Your task to perform on an android device: Open Chrome and go to settings Image 0: 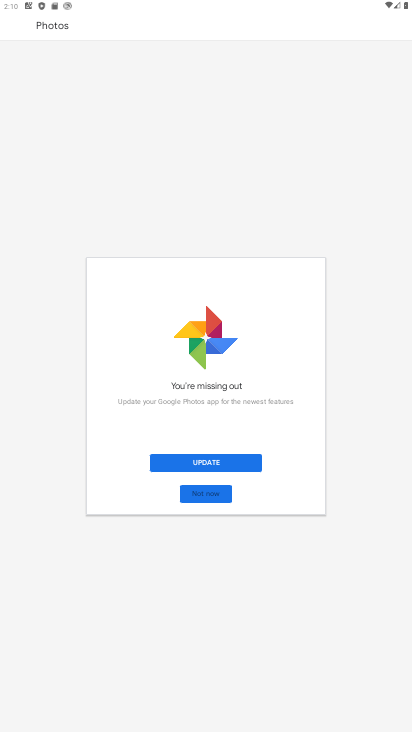
Step 0: press home button
Your task to perform on an android device: Open Chrome and go to settings Image 1: 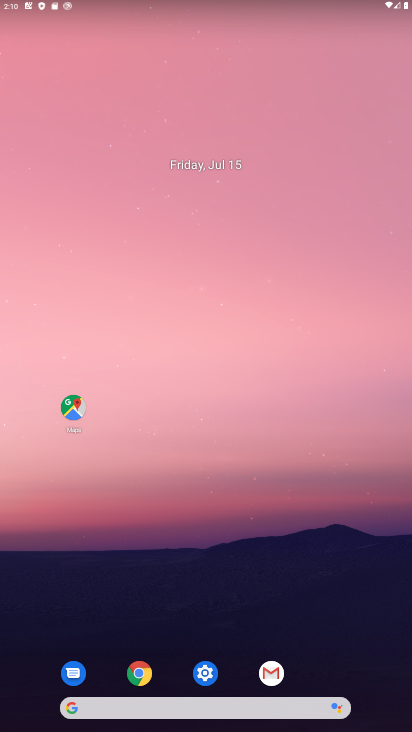
Step 1: click (131, 679)
Your task to perform on an android device: Open Chrome and go to settings Image 2: 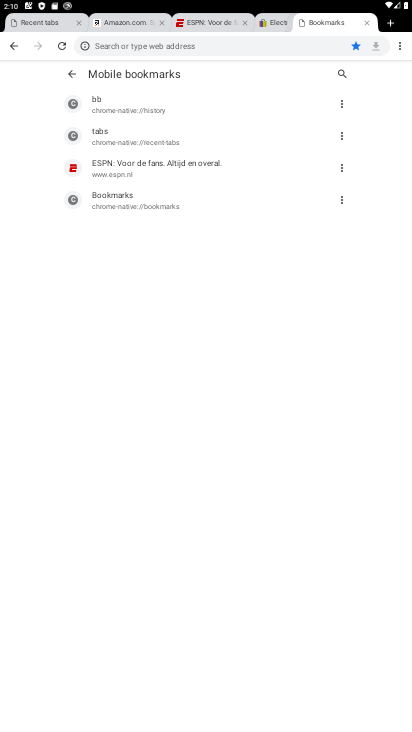
Step 2: click (401, 53)
Your task to perform on an android device: Open Chrome and go to settings Image 3: 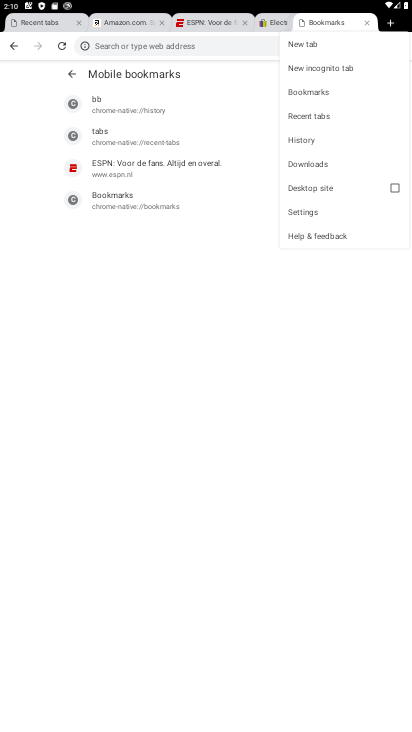
Step 3: click (308, 208)
Your task to perform on an android device: Open Chrome and go to settings Image 4: 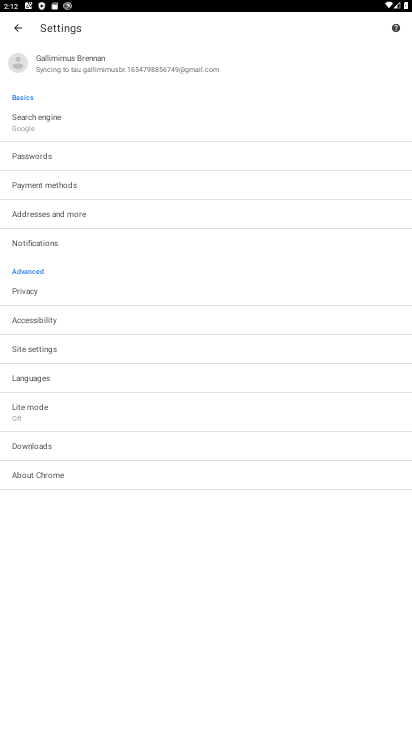
Step 4: task complete